Your task to perform on an android device: Open maps Image 0: 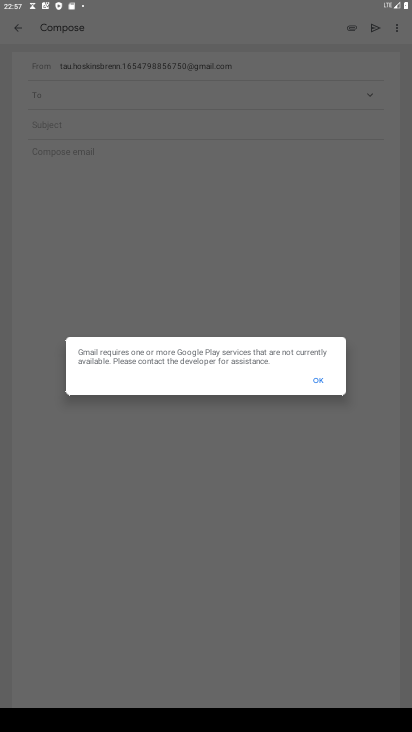
Step 0: drag from (196, 464) to (238, 337)
Your task to perform on an android device: Open maps Image 1: 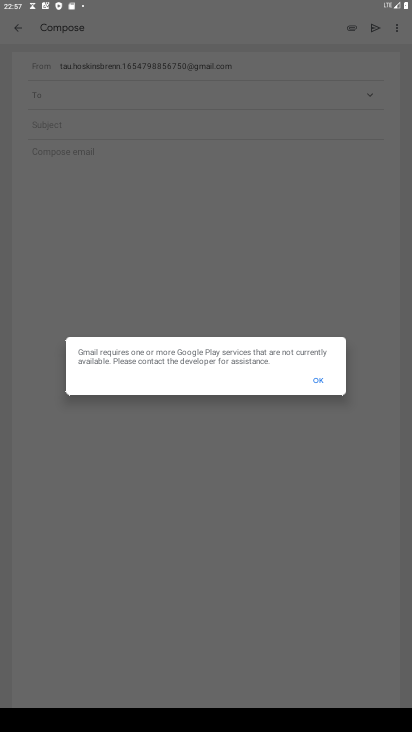
Step 1: press home button
Your task to perform on an android device: Open maps Image 2: 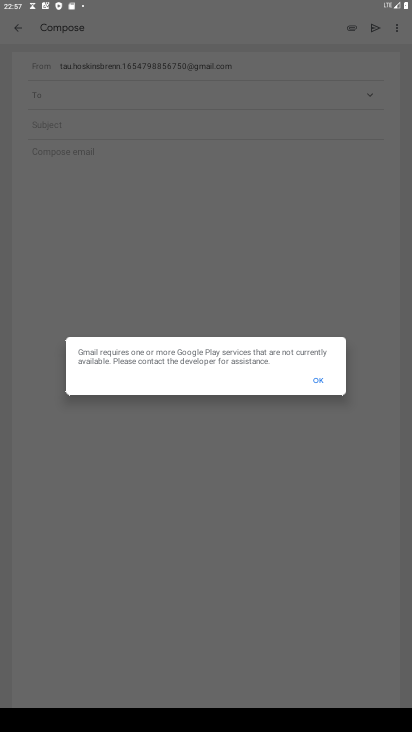
Step 2: drag from (196, 559) to (243, 84)
Your task to perform on an android device: Open maps Image 3: 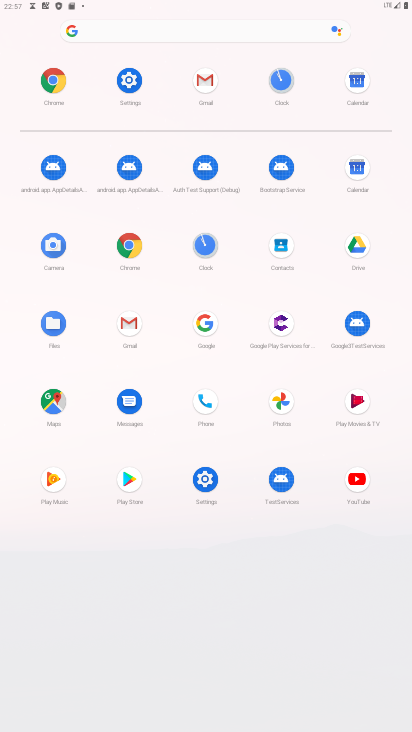
Step 3: click (38, 404)
Your task to perform on an android device: Open maps Image 4: 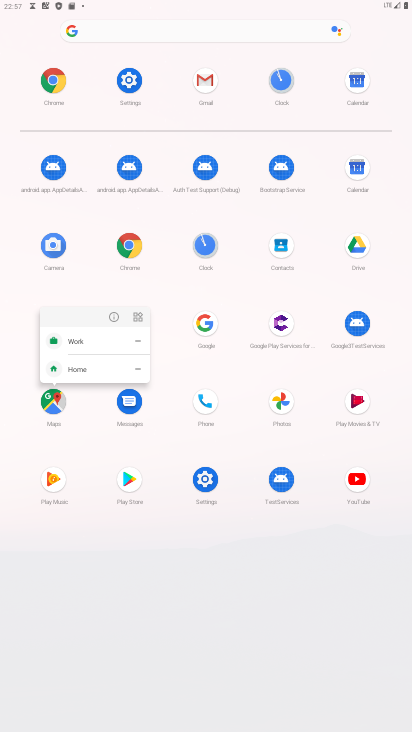
Step 4: drag from (219, 634) to (253, 392)
Your task to perform on an android device: Open maps Image 5: 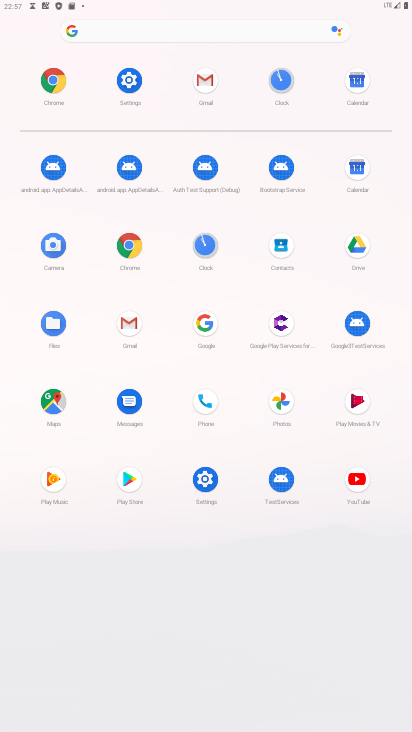
Step 5: click (56, 398)
Your task to perform on an android device: Open maps Image 6: 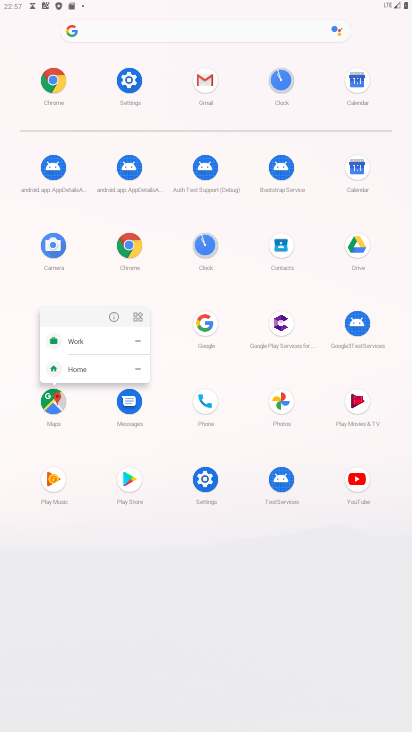
Step 6: click (110, 308)
Your task to perform on an android device: Open maps Image 7: 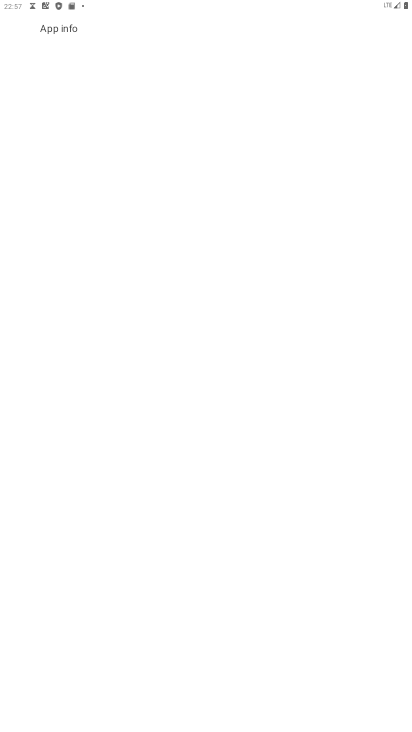
Step 7: drag from (241, 496) to (288, 126)
Your task to perform on an android device: Open maps Image 8: 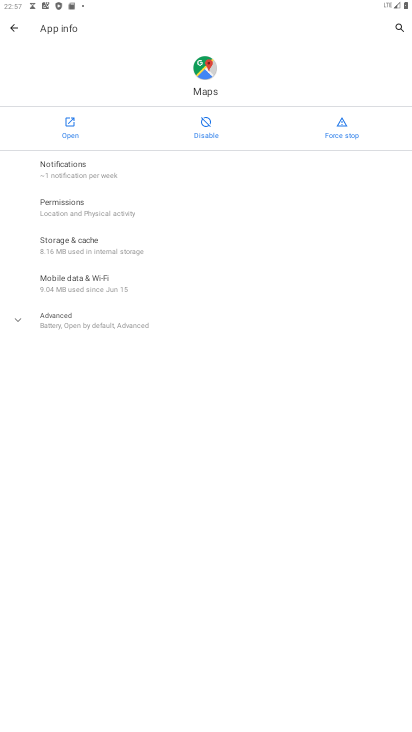
Step 8: click (72, 133)
Your task to perform on an android device: Open maps Image 9: 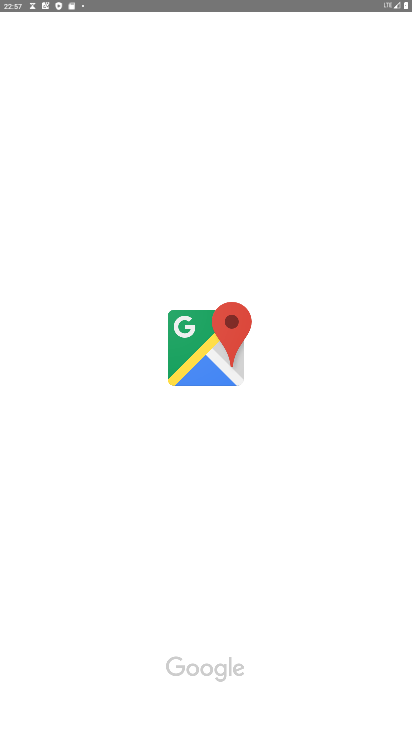
Step 9: task complete